Your task to perform on an android device: Open calendar and show me the third week of next month Image 0: 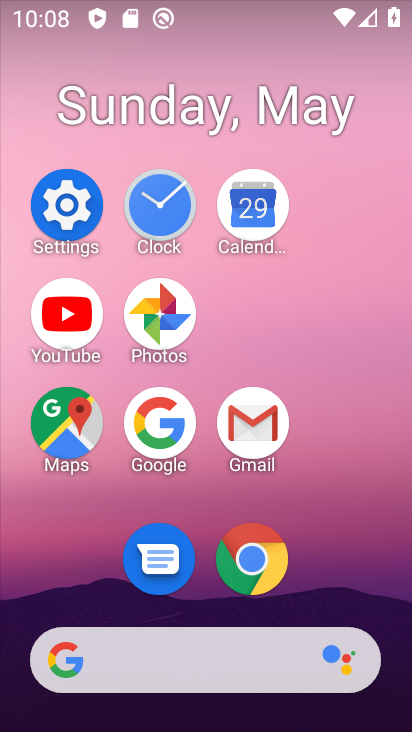
Step 0: click (255, 199)
Your task to perform on an android device: Open calendar and show me the third week of next month Image 1: 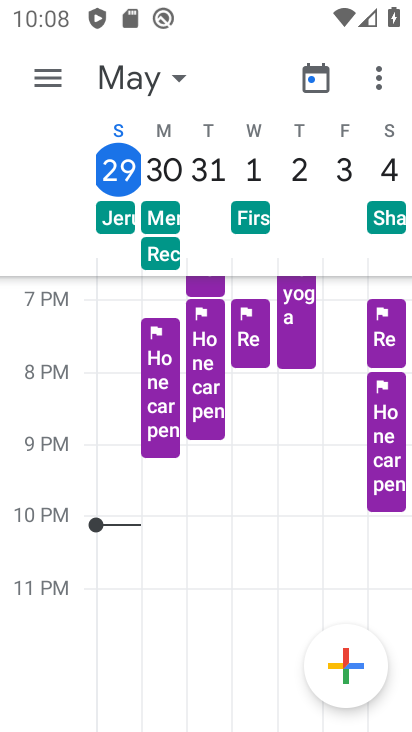
Step 1: click (115, 75)
Your task to perform on an android device: Open calendar and show me the third week of next month Image 2: 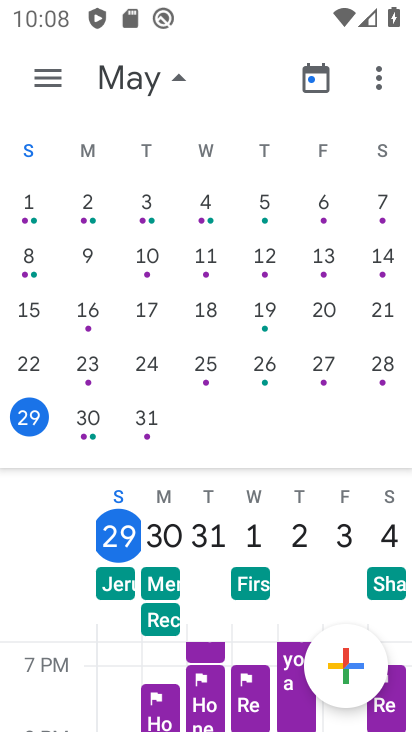
Step 2: drag from (396, 291) to (20, 232)
Your task to perform on an android device: Open calendar and show me the third week of next month Image 3: 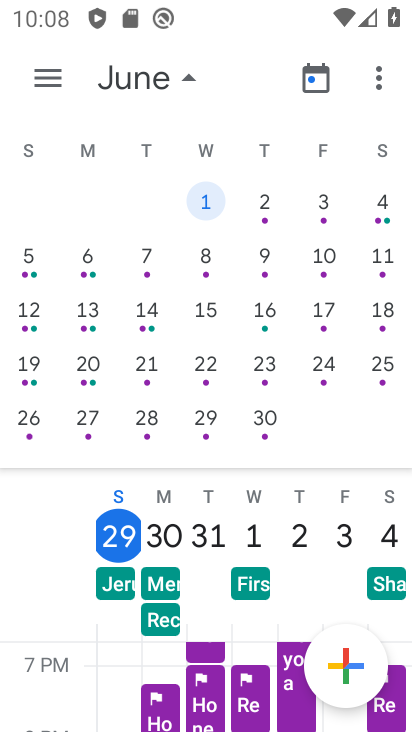
Step 3: click (24, 85)
Your task to perform on an android device: Open calendar and show me the third week of next month Image 4: 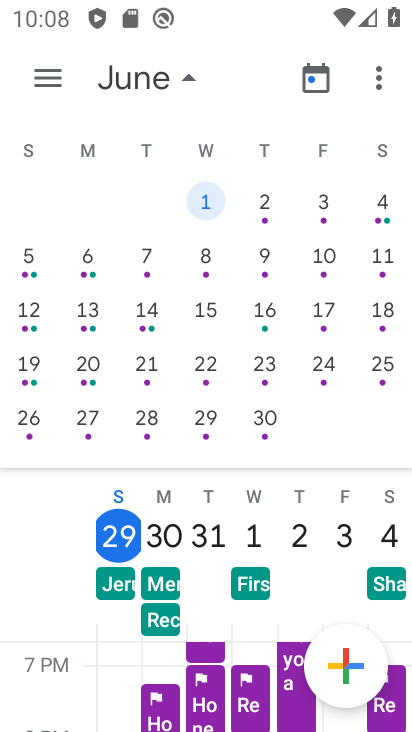
Step 4: click (38, 87)
Your task to perform on an android device: Open calendar and show me the third week of next month Image 5: 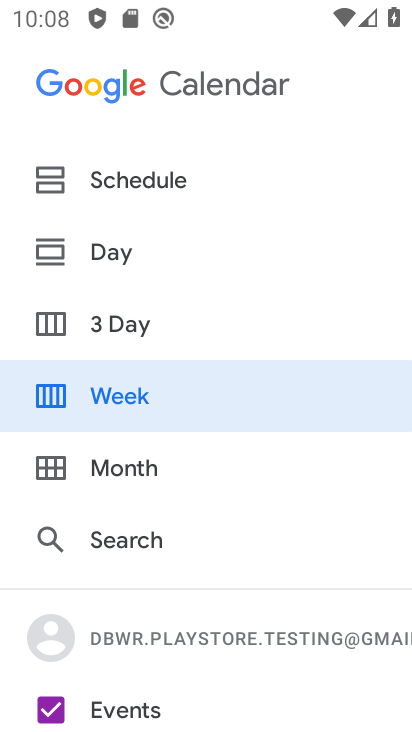
Step 5: click (157, 411)
Your task to perform on an android device: Open calendar and show me the third week of next month Image 6: 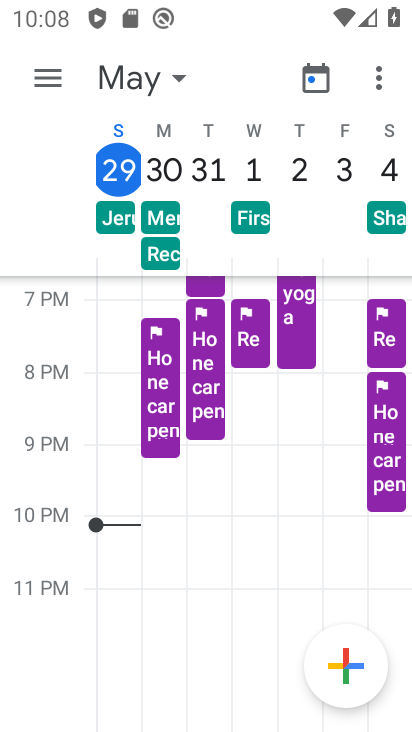
Step 6: task complete